Your task to perform on an android device: check battery use Image 0: 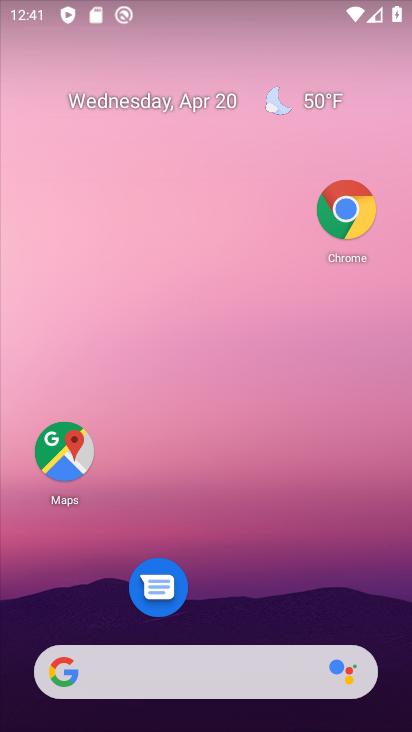
Step 0: drag from (230, 606) to (287, 129)
Your task to perform on an android device: check battery use Image 1: 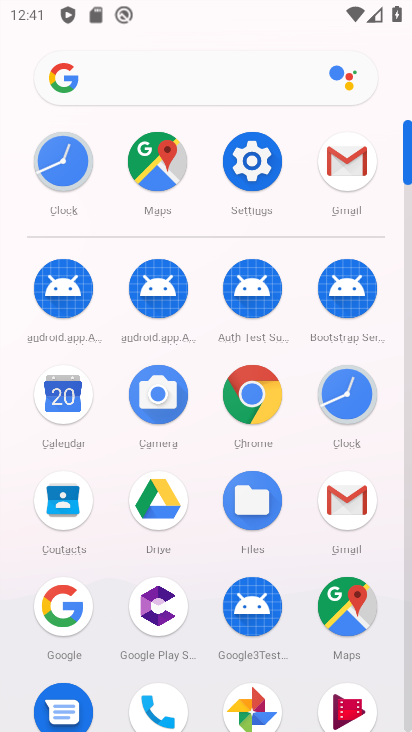
Step 1: click (260, 158)
Your task to perform on an android device: check battery use Image 2: 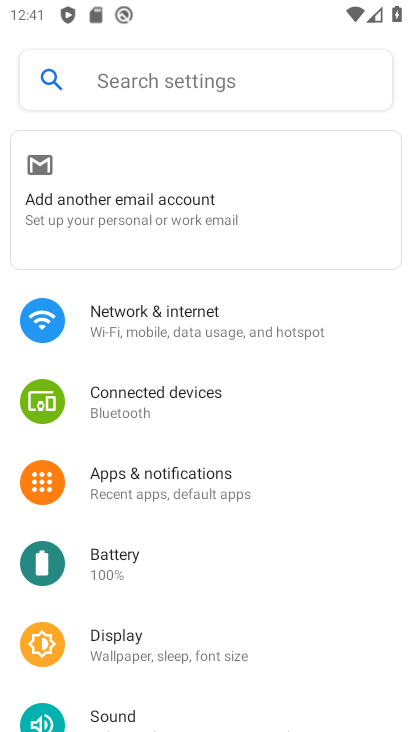
Step 2: click (125, 574)
Your task to perform on an android device: check battery use Image 3: 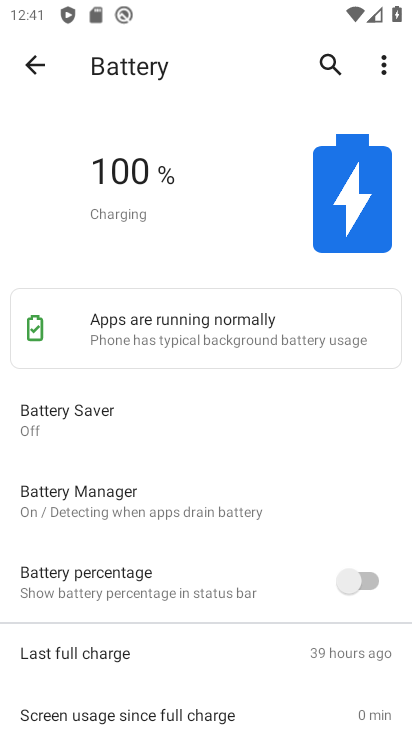
Step 3: click (385, 69)
Your task to perform on an android device: check battery use Image 4: 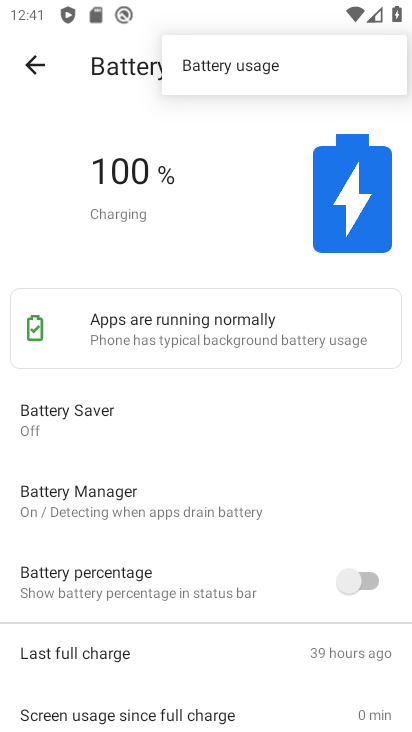
Step 4: click (324, 75)
Your task to perform on an android device: check battery use Image 5: 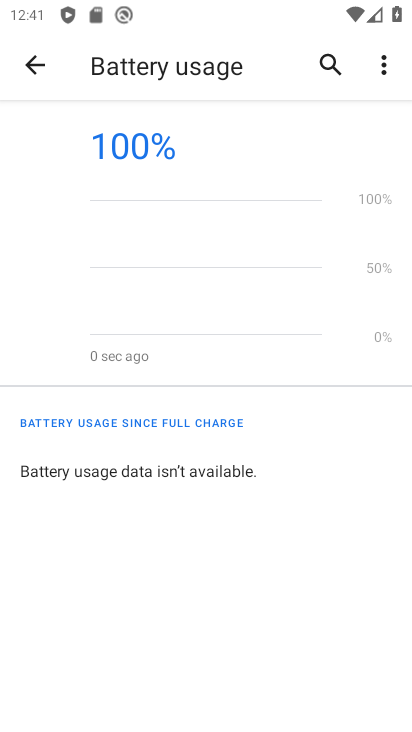
Step 5: task complete